Your task to perform on an android device: Go to calendar. Show me events next week Image 0: 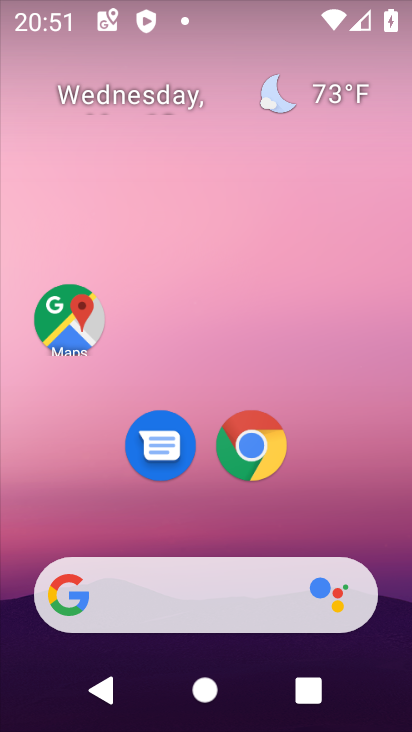
Step 0: drag from (329, 516) to (329, 48)
Your task to perform on an android device: Go to calendar. Show me events next week Image 1: 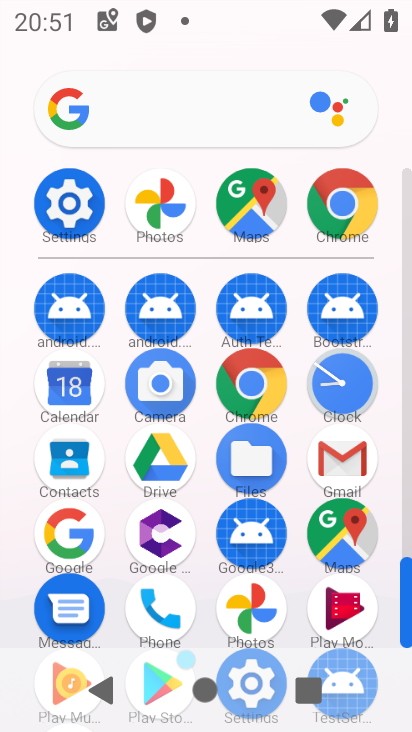
Step 1: click (83, 374)
Your task to perform on an android device: Go to calendar. Show me events next week Image 2: 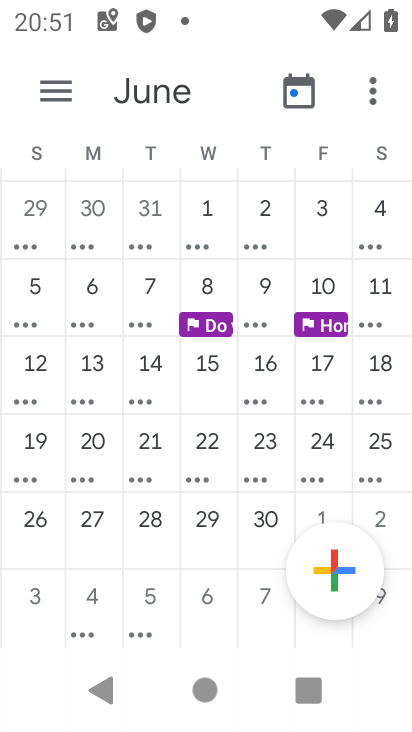
Step 2: drag from (50, 376) to (328, 394)
Your task to perform on an android device: Go to calendar. Show me events next week Image 3: 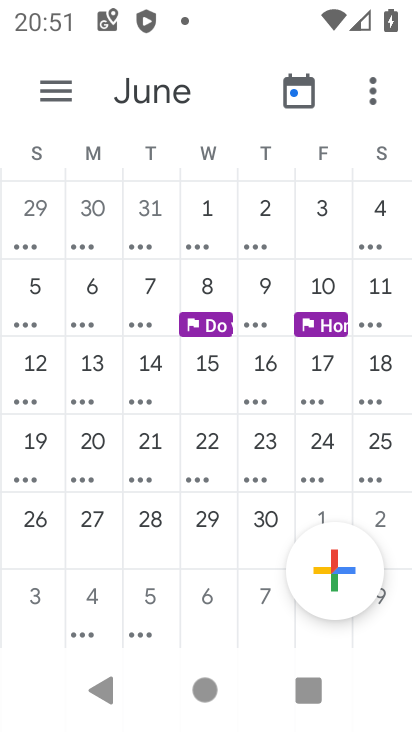
Step 3: drag from (25, 315) to (394, 189)
Your task to perform on an android device: Go to calendar. Show me events next week Image 4: 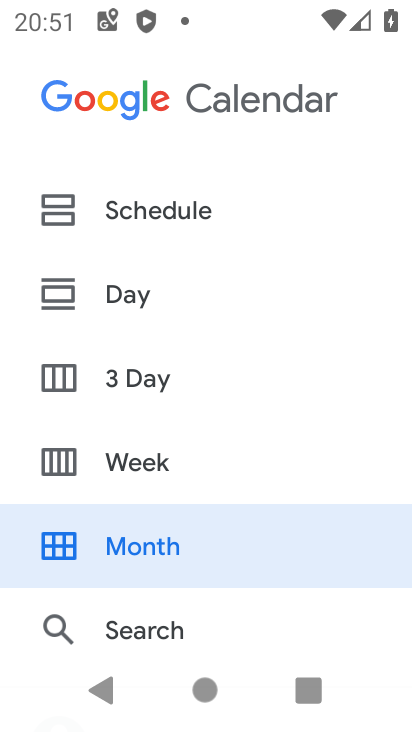
Step 4: click (381, 192)
Your task to perform on an android device: Go to calendar. Show me events next week Image 5: 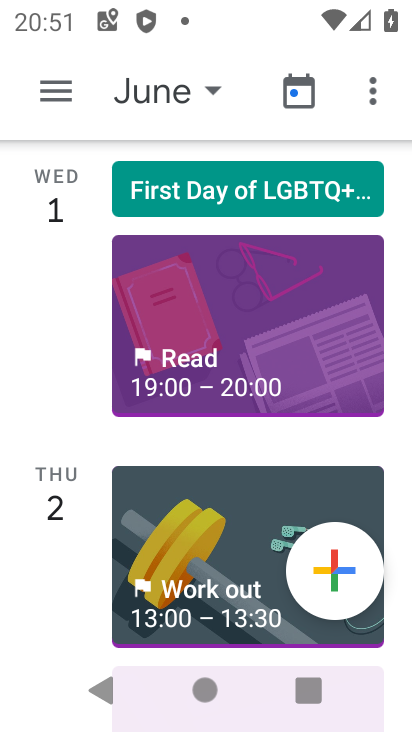
Step 5: drag from (66, 395) to (102, 346)
Your task to perform on an android device: Go to calendar. Show me events next week Image 6: 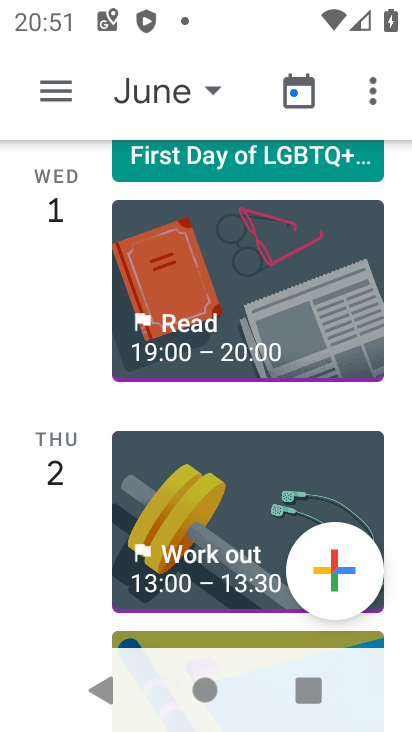
Step 6: click (53, 77)
Your task to perform on an android device: Go to calendar. Show me events next week Image 7: 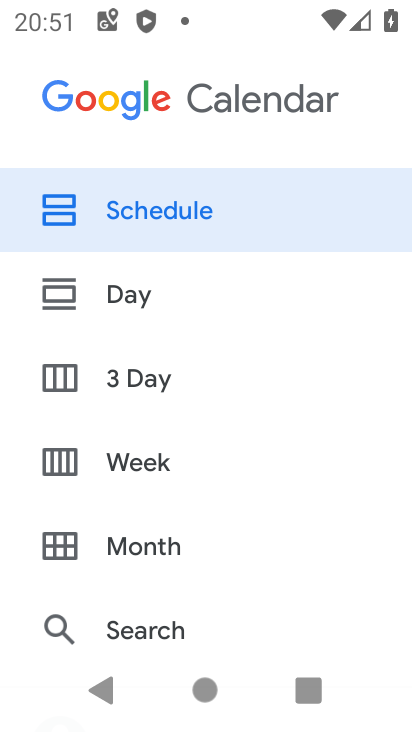
Step 7: click (138, 458)
Your task to perform on an android device: Go to calendar. Show me events next week Image 8: 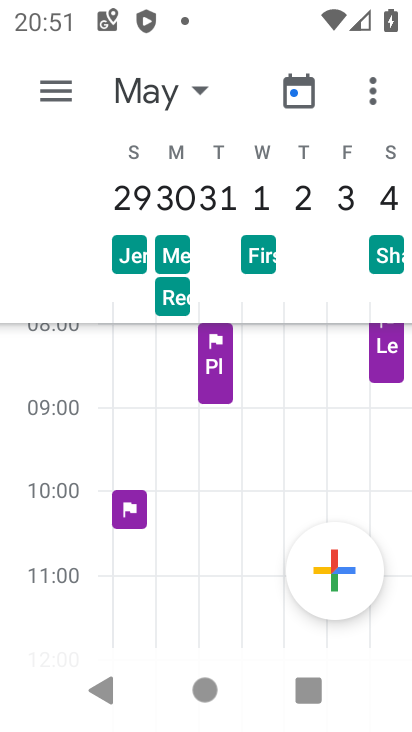
Step 8: click (148, 235)
Your task to perform on an android device: Go to calendar. Show me events next week Image 9: 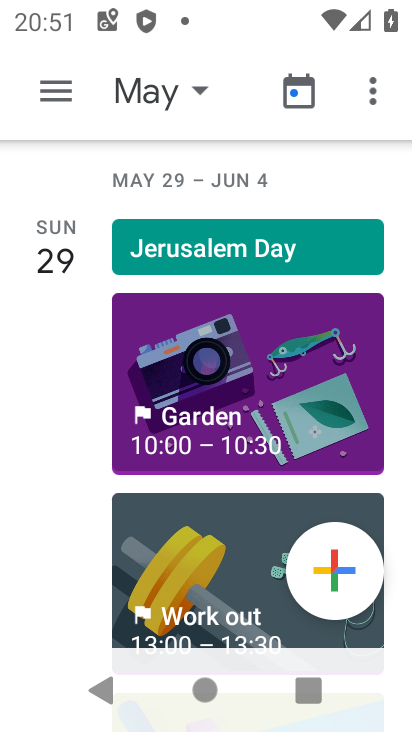
Step 9: task complete